Your task to perform on an android device: allow notifications from all sites in the chrome app Image 0: 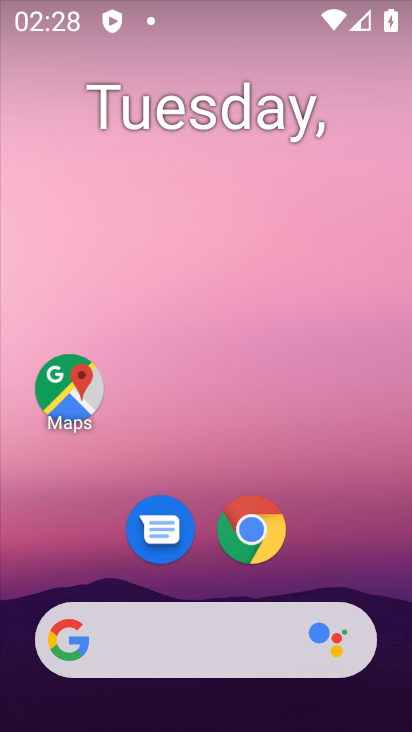
Step 0: click (262, 533)
Your task to perform on an android device: allow notifications from all sites in the chrome app Image 1: 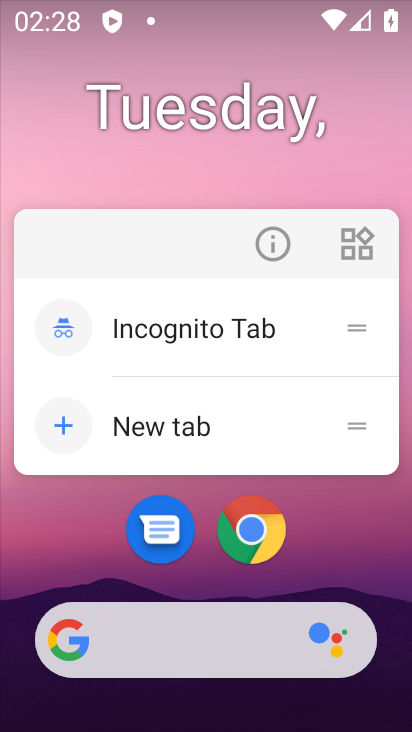
Step 1: click (262, 533)
Your task to perform on an android device: allow notifications from all sites in the chrome app Image 2: 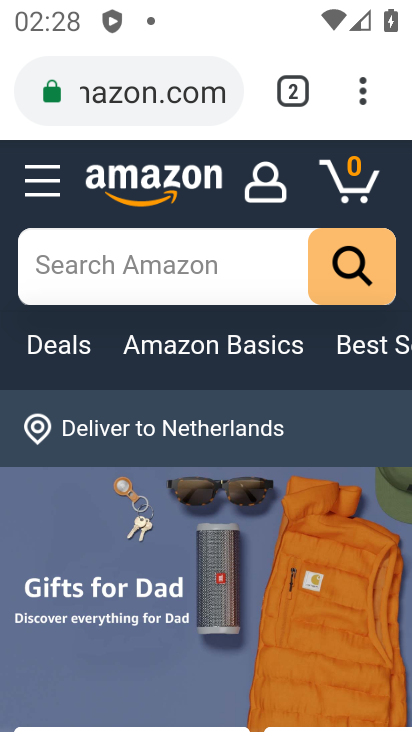
Step 2: click (362, 91)
Your task to perform on an android device: allow notifications from all sites in the chrome app Image 3: 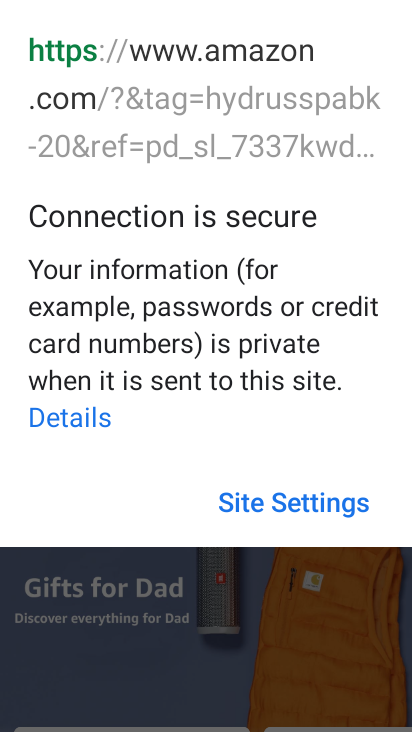
Step 3: click (82, 630)
Your task to perform on an android device: allow notifications from all sites in the chrome app Image 4: 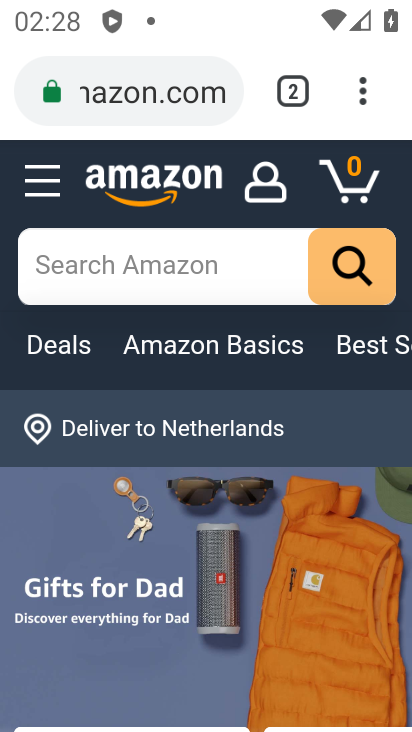
Step 4: click (366, 92)
Your task to perform on an android device: allow notifications from all sites in the chrome app Image 5: 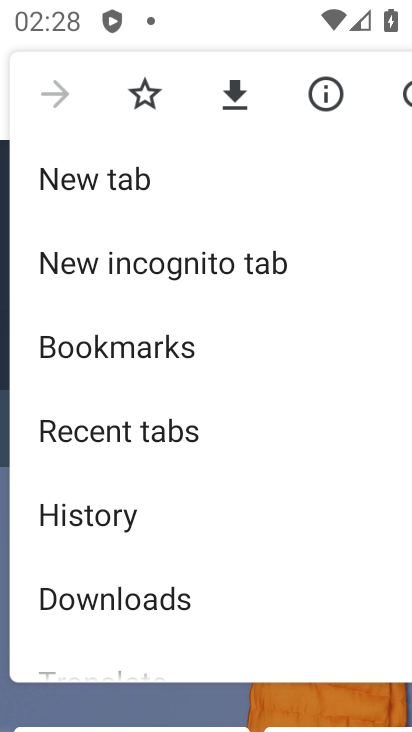
Step 5: drag from (191, 623) to (162, 164)
Your task to perform on an android device: allow notifications from all sites in the chrome app Image 6: 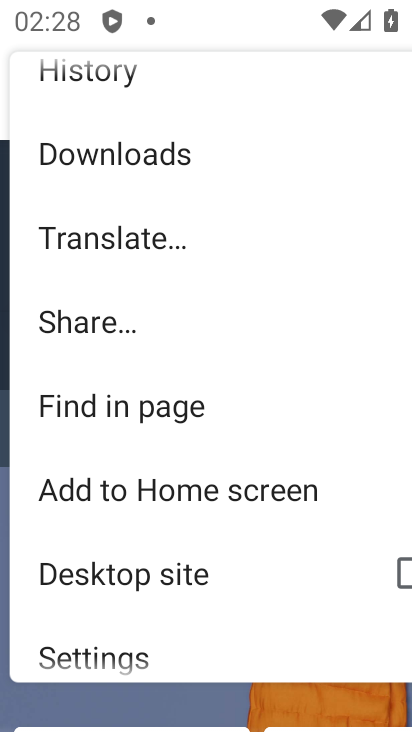
Step 6: click (94, 640)
Your task to perform on an android device: allow notifications from all sites in the chrome app Image 7: 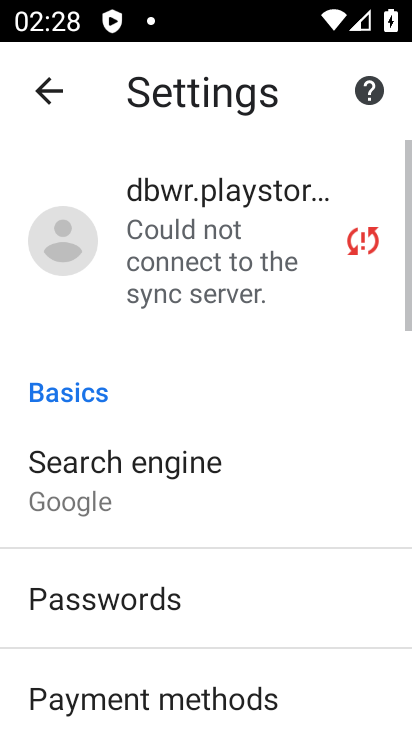
Step 7: drag from (179, 622) to (208, 228)
Your task to perform on an android device: allow notifications from all sites in the chrome app Image 8: 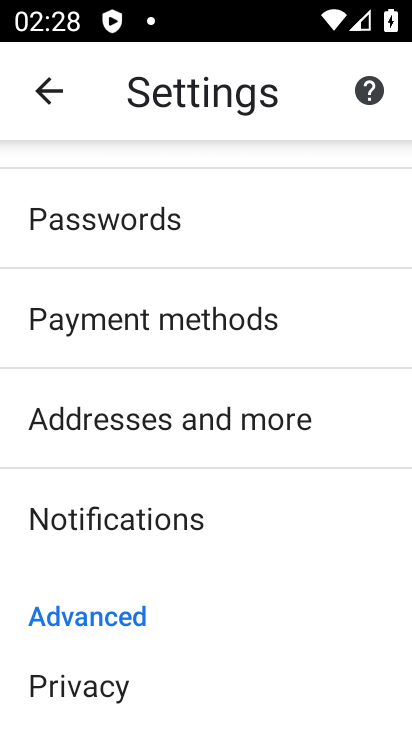
Step 8: click (133, 511)
Your task to perform on an android device: allow notifications from all sites in the chrome app Image 9: 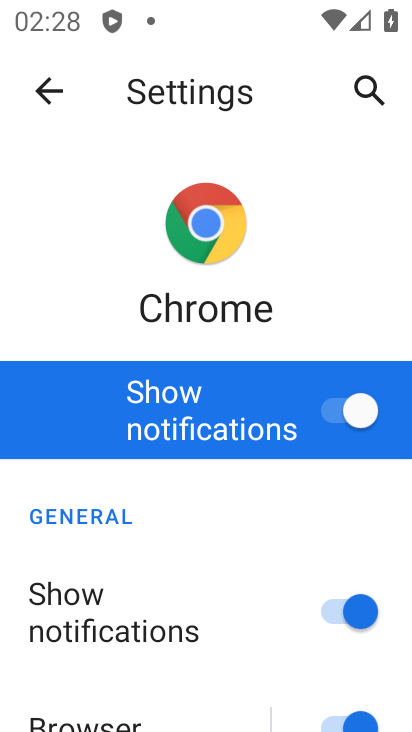
Step 9: task complete